Your task to perform on an android device: toggle improve location accuracy Image 0: 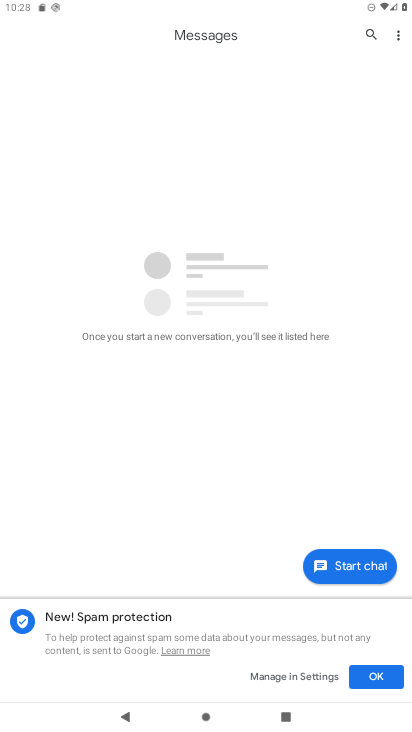
Step 0: press home button
Your task to perform on an android device: toggle improve location accuracy Image 1: 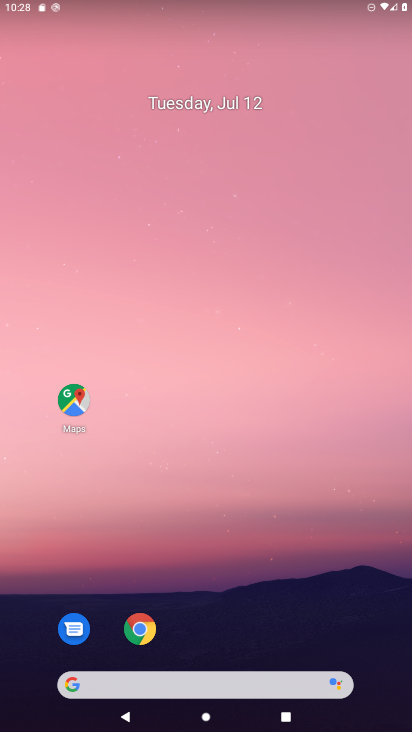
Step 1: drag from (77, 677) to (156, 3)
Your task to perform on an android device: toggle improve location accuracy Image 2: 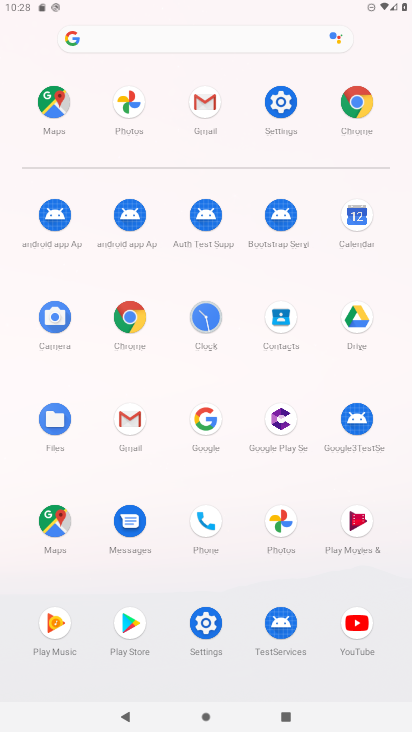
Step 2: click (286, 103)
Your task to perform on an android device: toggle improve location accuracy Image 3: 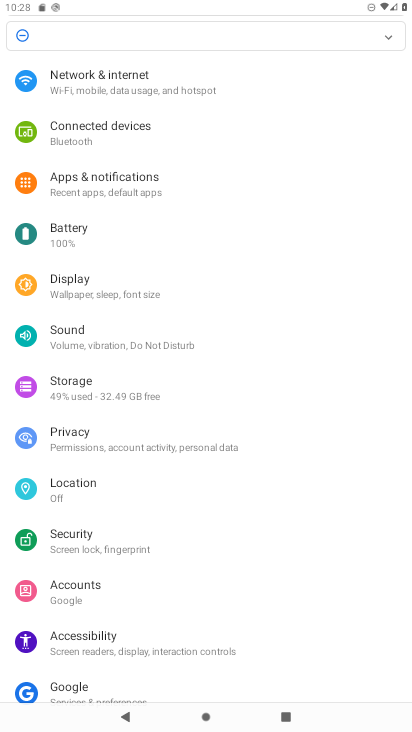
Step 3: click (102, 483)
Your task to perform on an android device: toggle improve location accuracy Image 4: 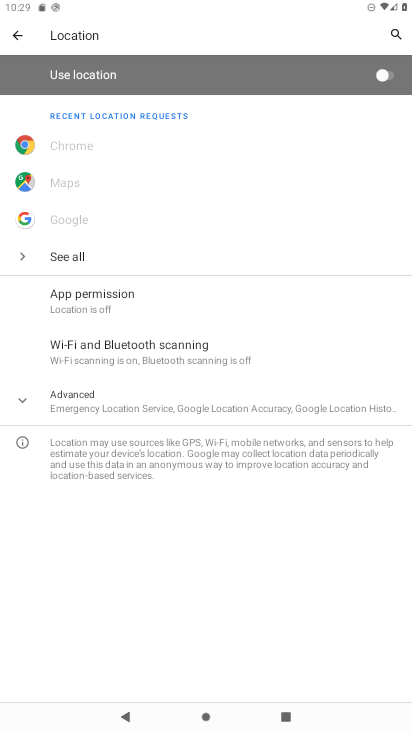
Step 4: click (178, 407)
Your task to perform on an android device: toggle improve location accuracy Image 5: 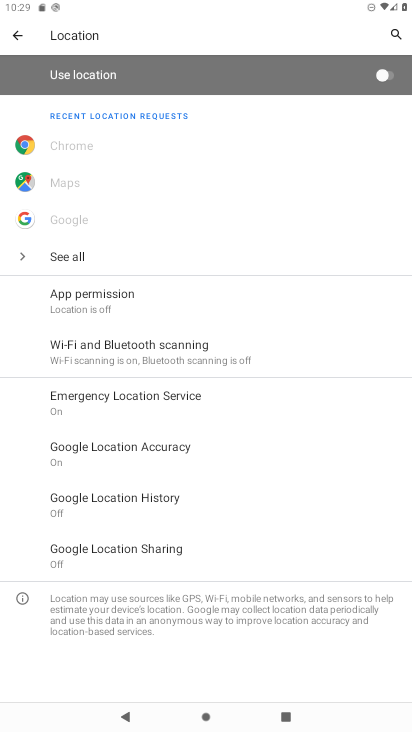
Step 5: click (165, 450)
Your task to perform on an android device: toggle improve location accuracy Image 6: 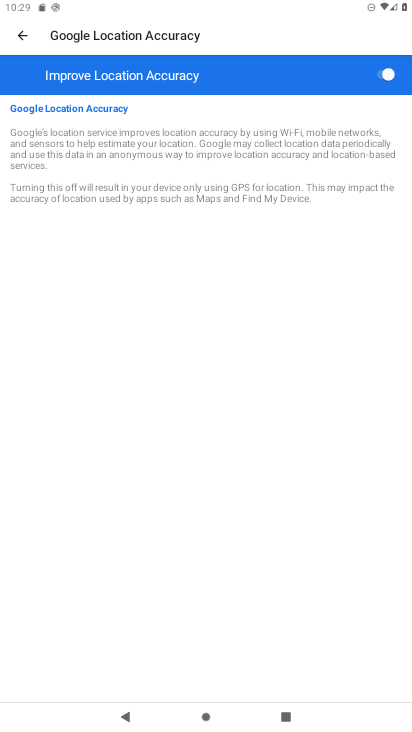
Step 6: click (383, 69)
Your task to perform on an android device: toggle improve location accuracy Image 7: 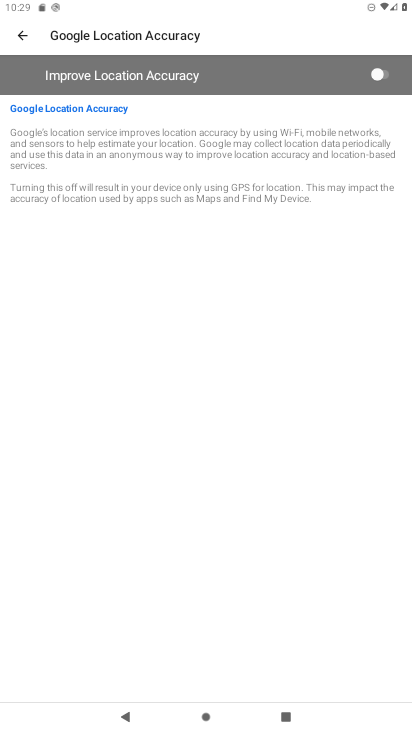
Step 7: task complete